Your task to perform on an android device: Open privacy settings Image 0: 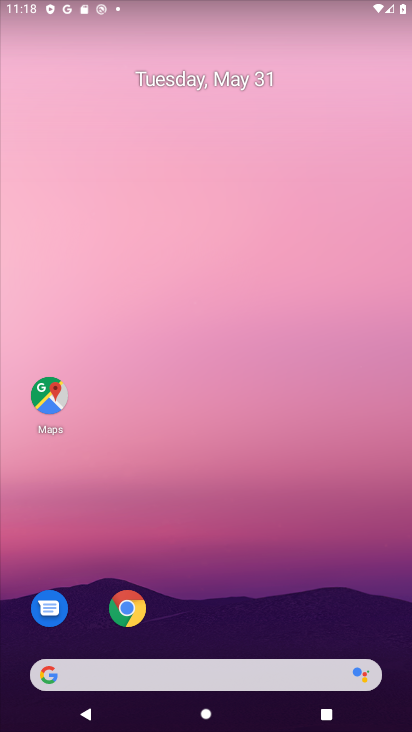
Step 0: drag from (295, 575) to (330, 50)
Your task to perform on an android device: Open privacy settings Image 1: 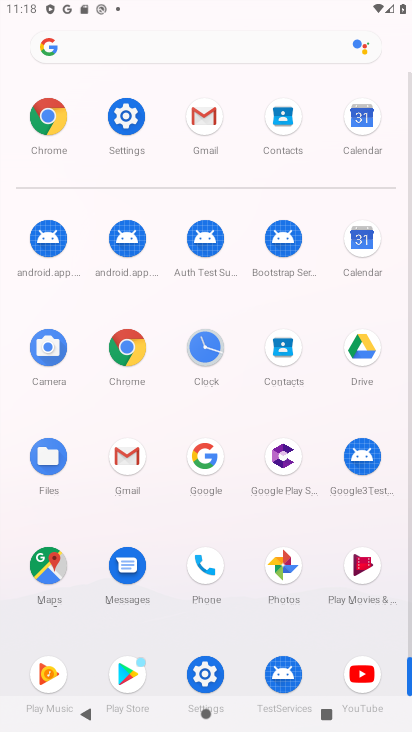
Step 1: click (110, 117)
Your task to perform on an android device: Open privacy settings Image 2: 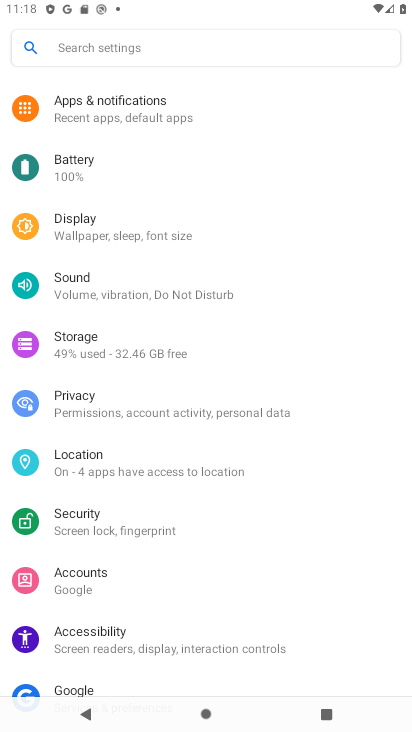
Step 2: click (74, 410)
Your task to perform on an android device: Open privacy settings Image 3: 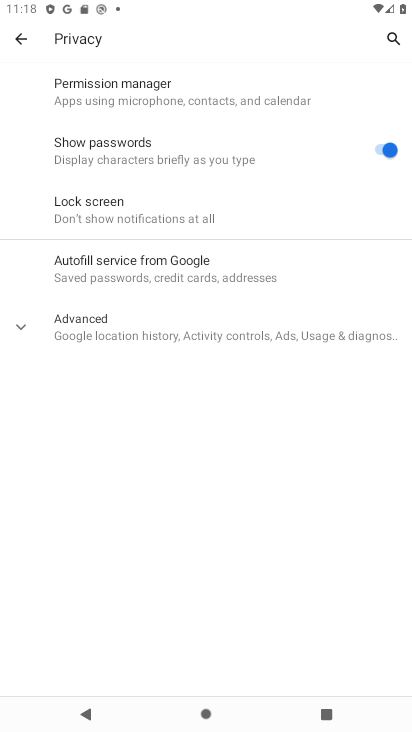
Step 3: task complete